Your task to perform on an android device: Open Google Image 0: 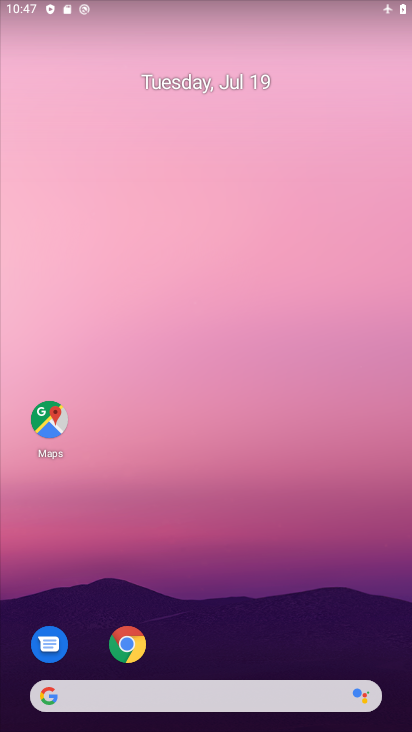
Step 0: click (169, 694)
Your task to perform on an android device: Open Google Image 1: 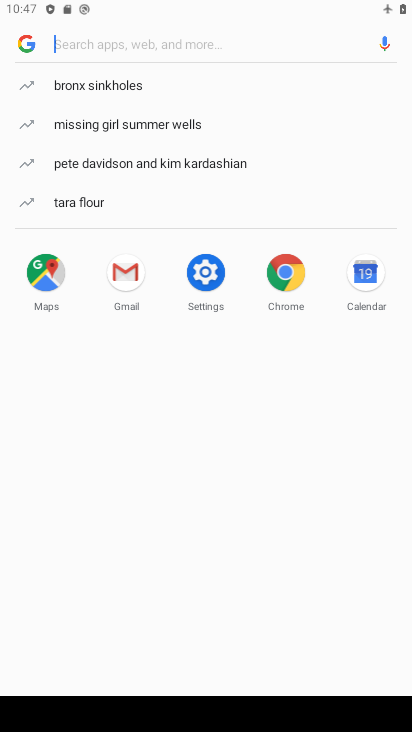
Step 1: click (19, 40)
Your task to perform on an android device: Open Google Image 2: 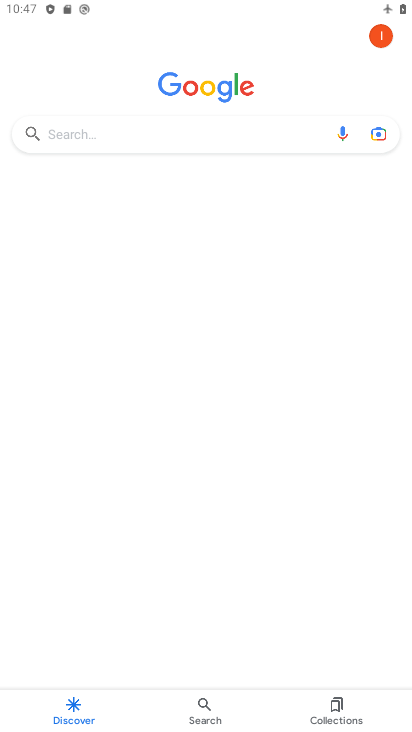
Step 2: task complete